Your task to perform on an android device: Go to display settings Image 0: 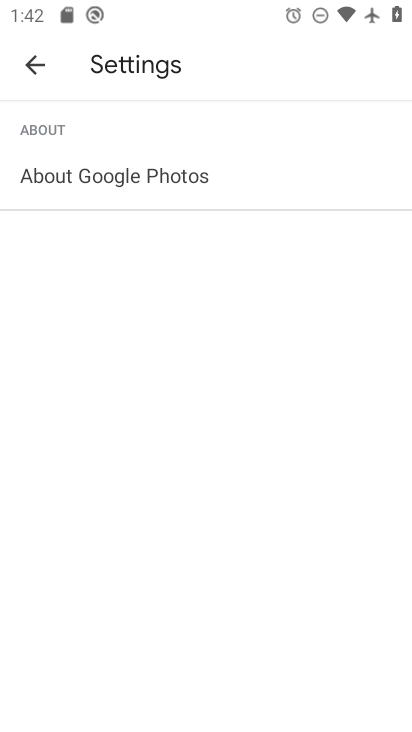
Step 0: press home button
Your task to perform on an android device: Go to display settings Image 1: 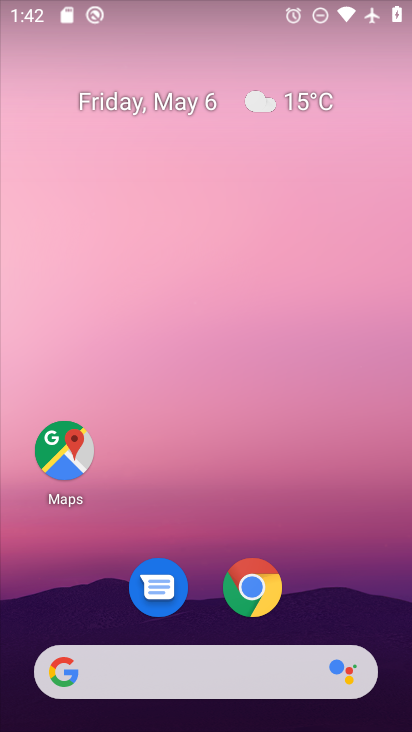
Step 1: drag from (336, 533) to (204, 9)
Your task to perform on an android device: Go to display settings Image 2: 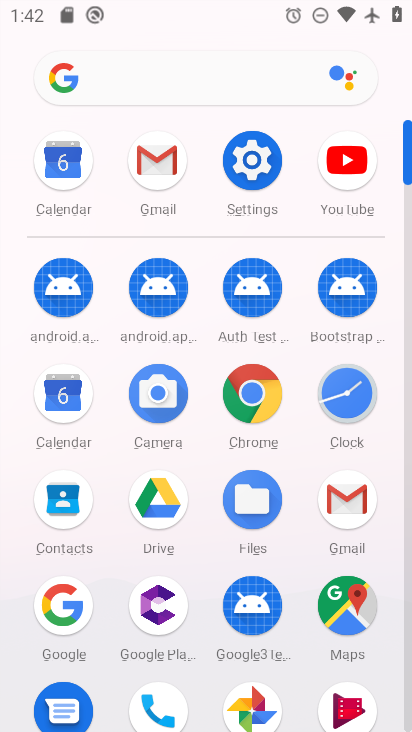
Step 2: click (250, 172)
Your task to perform on an android device: Go to display settings Image 3: 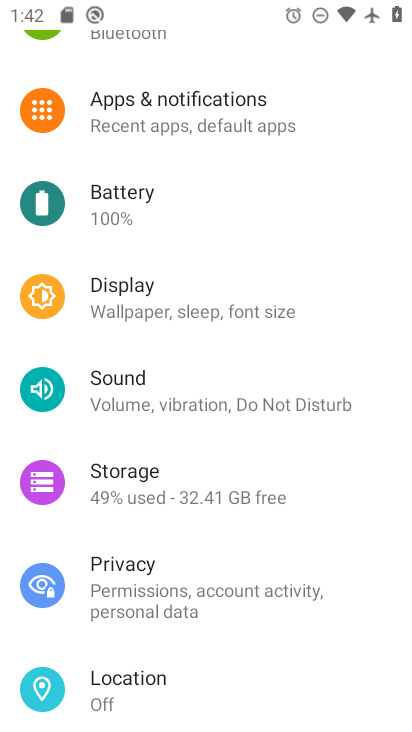
Step 3: click (191, 277)
Your task to perform on an android device: Go to display settings Image 4: 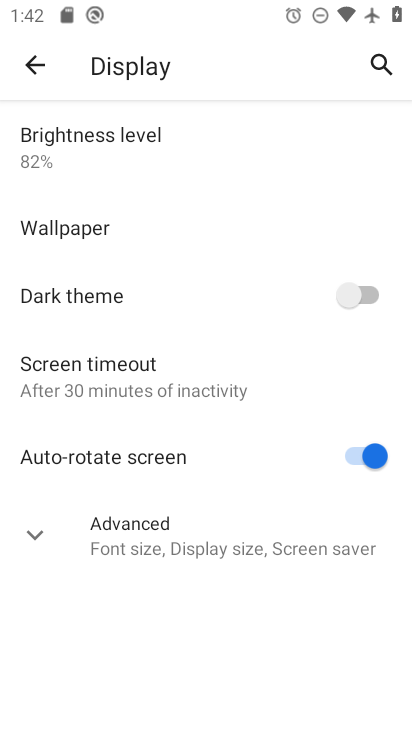
Step 4: task complete